Your task to perform on an android device: Open Google Maps and go to "Timeline" Image 0: 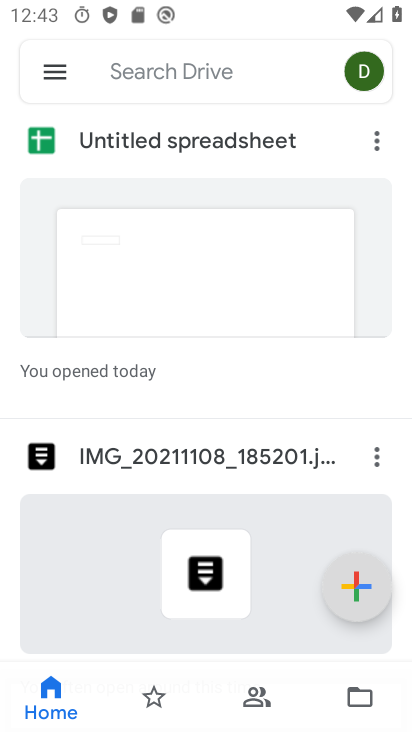
Step 0: press back button
Your task to perform on an android device: Open Google Maps and go to "Timeline" Image 1: 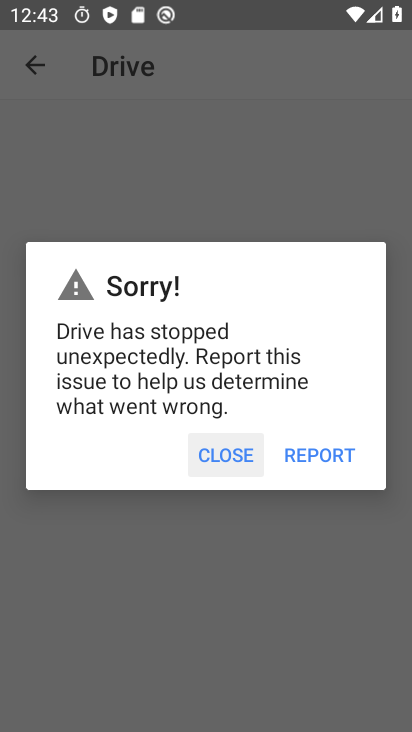
Step 1: press home button
Your task to perform on an android device: Open Google Maps and go to "Timeline" Image 2: 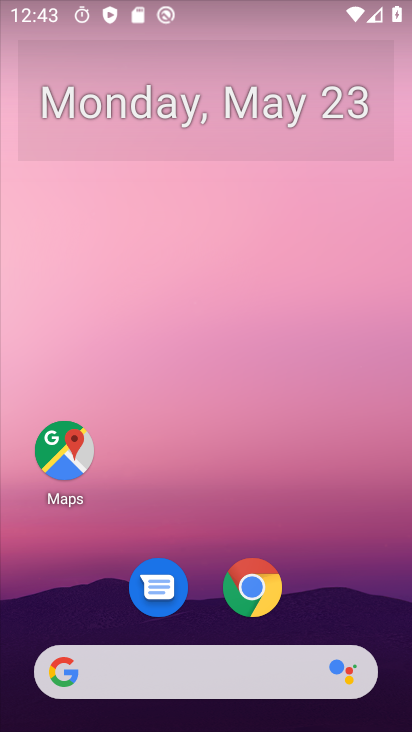
Step 2: click (60, 455)
Your task to perform on an android device: Open Google Maps and go to "Timeline" Image 3: 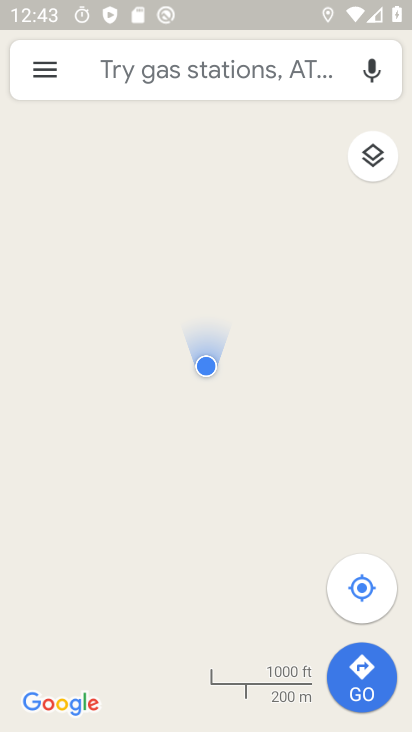
Step 3: click (41, 65)
Your task to perform on an android device: Open Google Maps and go to "Timeline" Image 4: 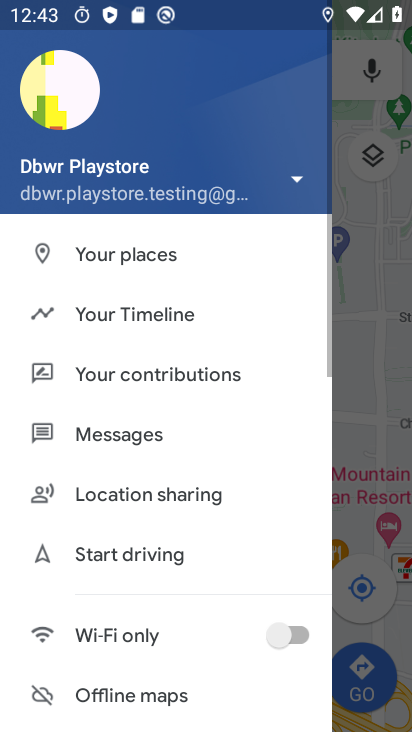
Step 4: click (116, 316)
Your task to perform on an android device: Open Google Maps and go to "Timeline" Image 5: 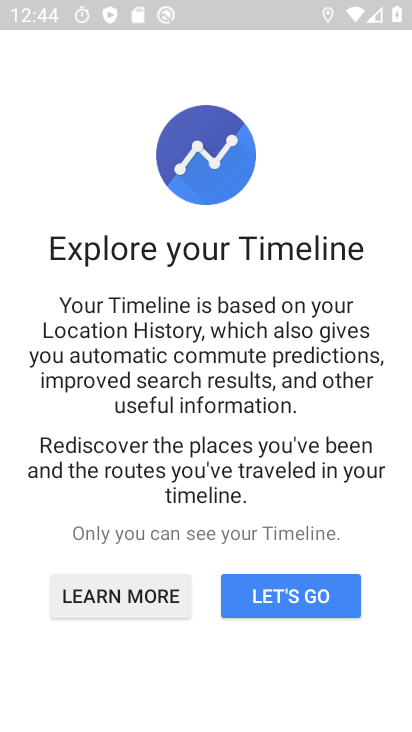
Step 5: click (318, 590)
Your task to perform on an android device: Open Google Maps and go to "Timeline" Image 6: 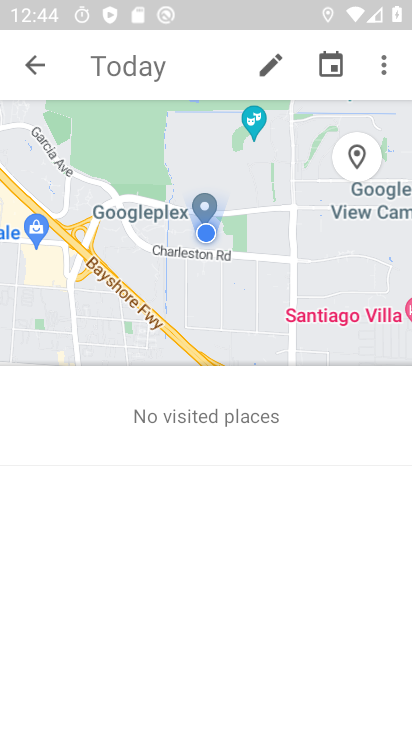
Step 6: click (376, 54)
Your task to perform on an android device: Open Google Maps and go to "Timeline" Image 7: 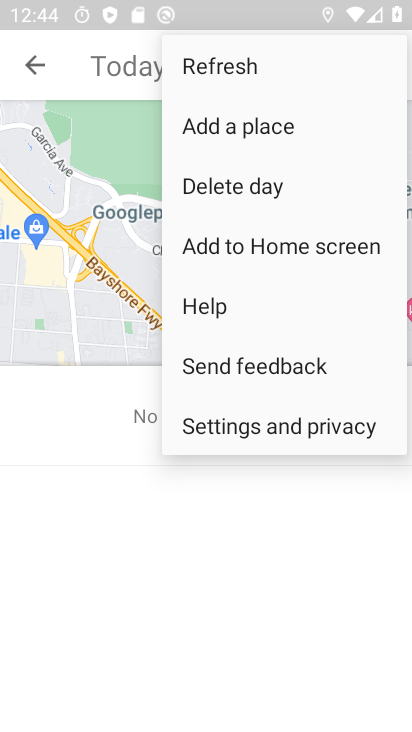
Step 7: click (124, 429)
Your task to perform on an android device: Open Google Maps and go to "Timeline" Image 8: 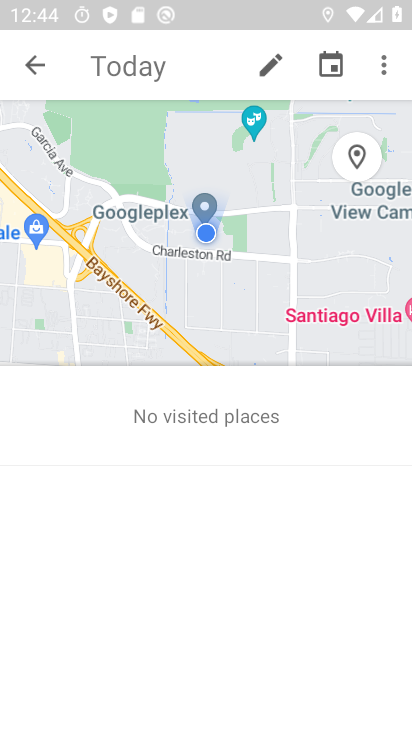
Step 8: task complete